Your task to perform on an android device: turn off data saver in the chrome app Image 0: 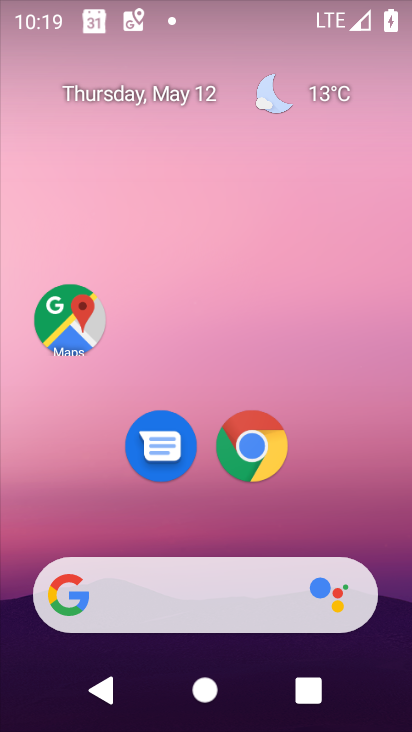
Step 0: drag from (272, 594) to (306, 9)
Your task to perform on an android device: turn off data saver in the chrome app Image 1: 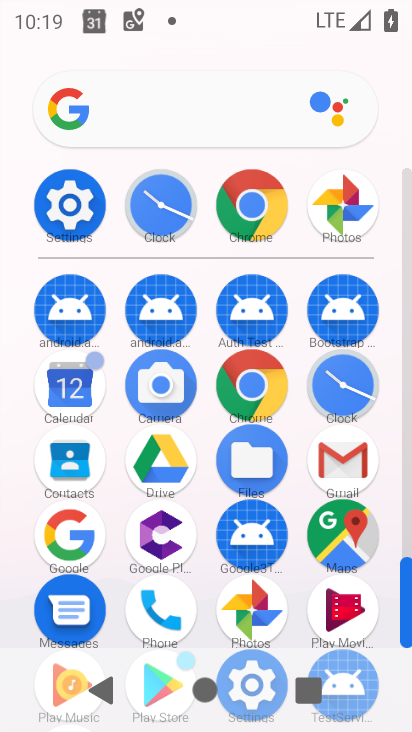
Step 1: click (264, 390)
Your task to perform on an android device: turn off data saver in the chrome app Image 2: 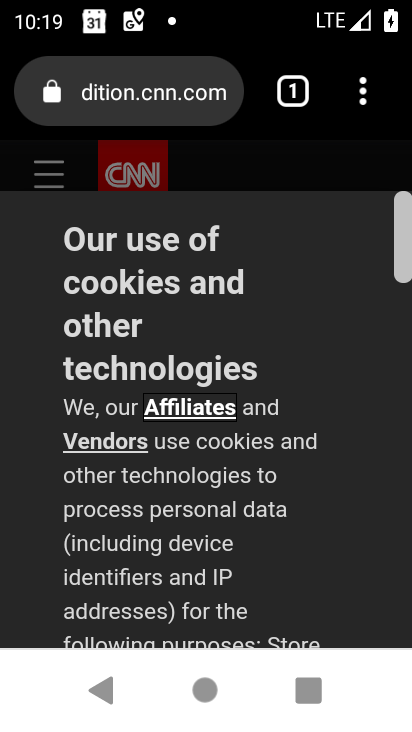
Step 2: drag from (361, 90) to (91, 482)
Your task to perform on an android device: turn off data saver in the chrome app Image 3: 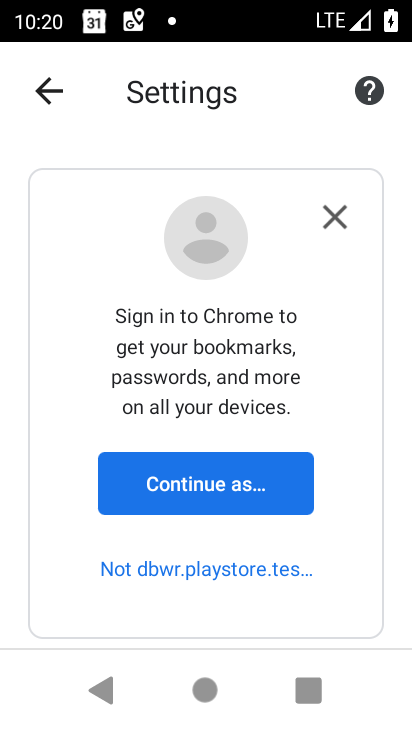
Step 3: drag from (178, 613) to (298, 168)
Your task to perform on an android device: turn off data saver in the chrome app Image 4: 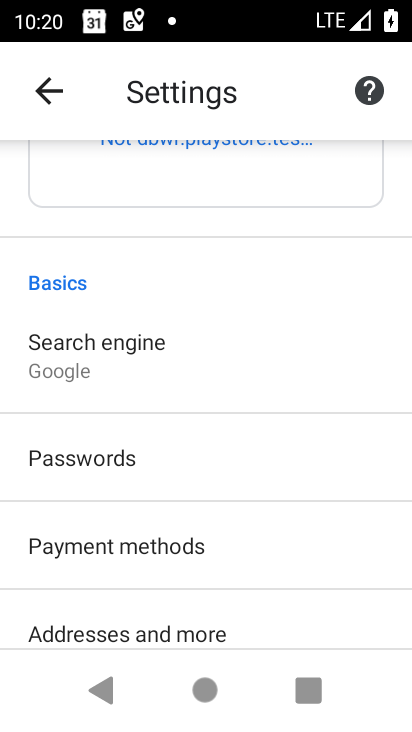
Step 4: drag from (170, 579) to (219, 97)
Your task to perform on an android device: turn off data saver in the chrome app Image 5: 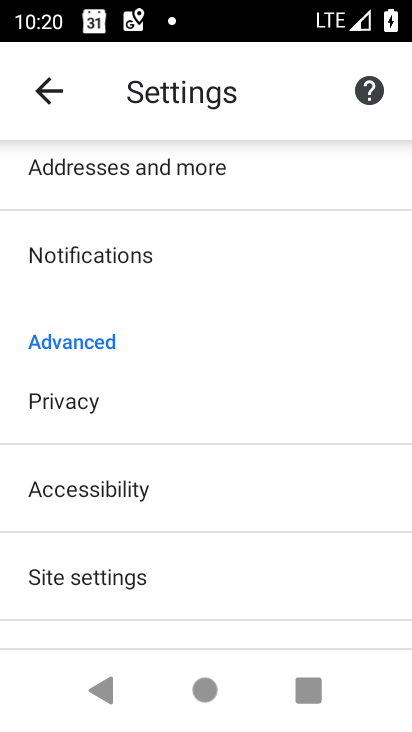
Step 5: click (167, 569)
Your task to perform on an android device: turn off data saver in the chrome app Image 6: 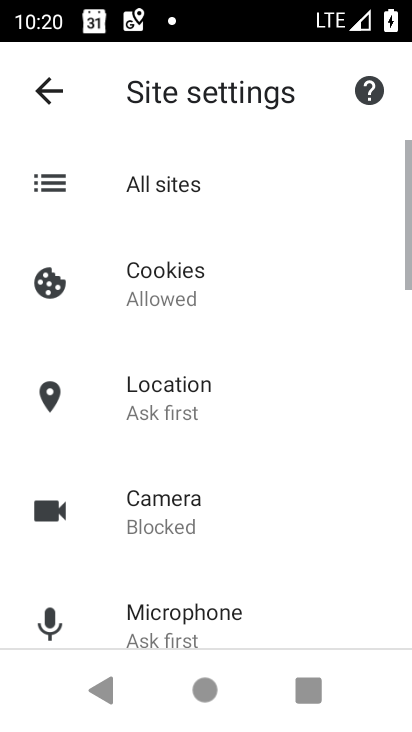
Step 6: drag from (147, 628) to (241, 221)
Your task to perform on an android device: turn off data saver in the chrome app Image 7: 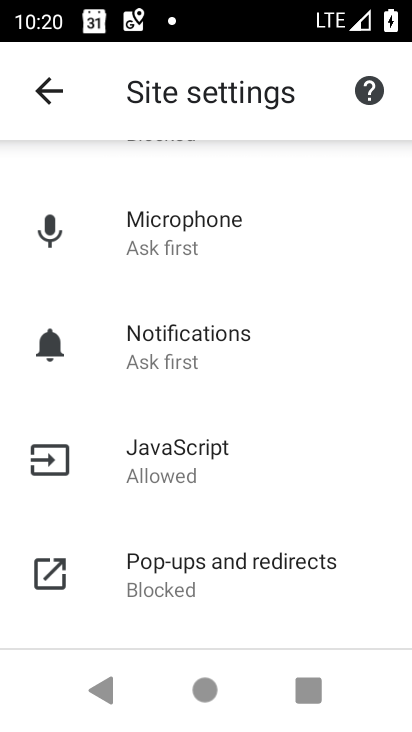
Step 7: press back button
Your task to perform on an android device: turn off data saver in the chrome app Image 8: 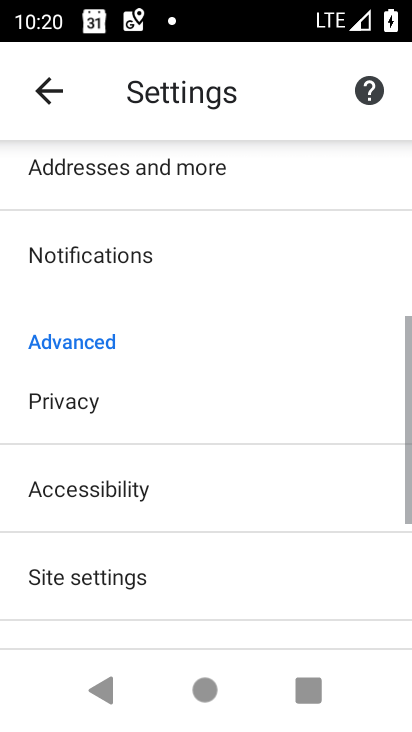
Step 8: drag from (132, 596) to (232, 254)
Your task to perform on an android device: turn off data saver in the chrome app Image 9: 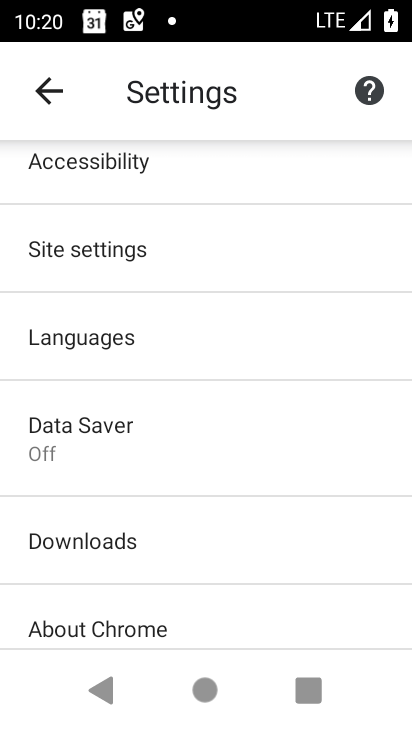
Step 9: click (181, 442)
Your task to perform on an android device: turn off data saver in the chrome app Image 10: 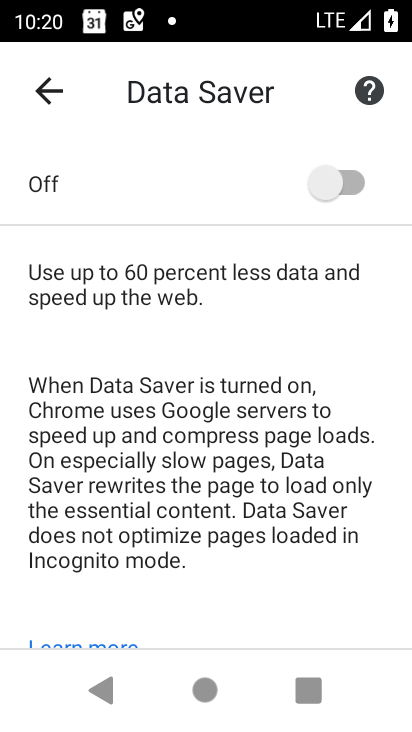
Step 10: task complete